Your task to perform on an android device: Open calendar and show me the second week of next month Image 0: 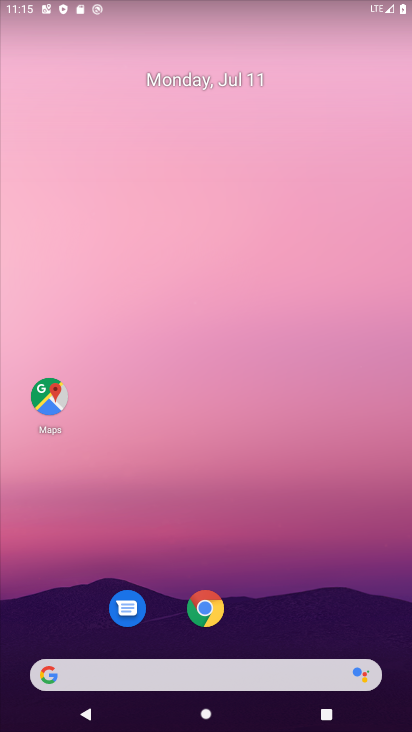
Step 0: drag from (30, 676) to (279, 7)
Your task to perform on an android device: Open calendar and show me the second week of next month Image 1: 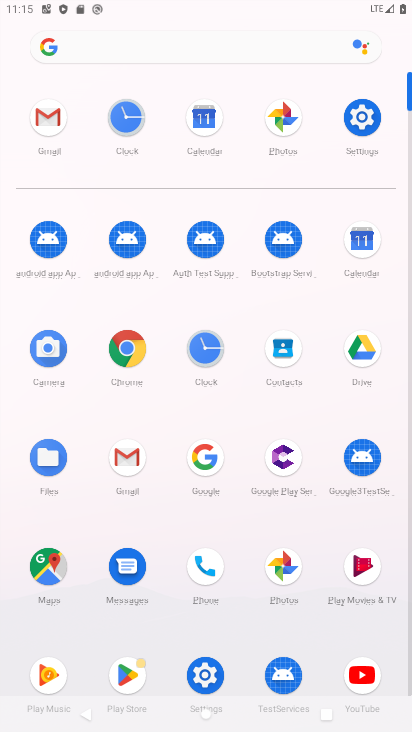
Step 1: click (362, 244)
Your task to perform on an android device: Open calendar and show me the second week of next month Image 2: 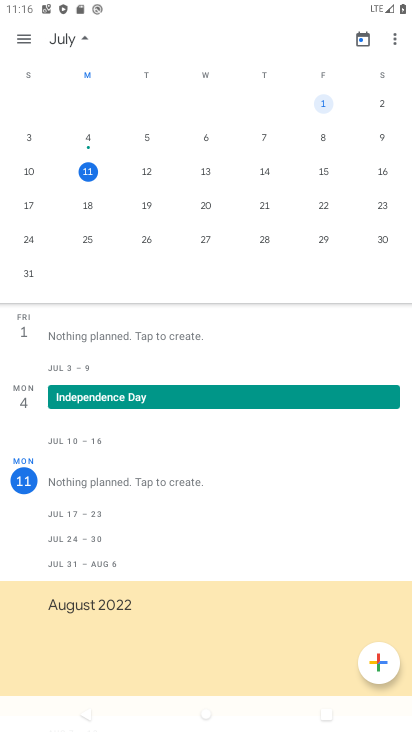
Step 2: drag from (404, 146) to (2, 284)
Your task to perform on an android device: Open calendar and show me the second week of next month Image 3: 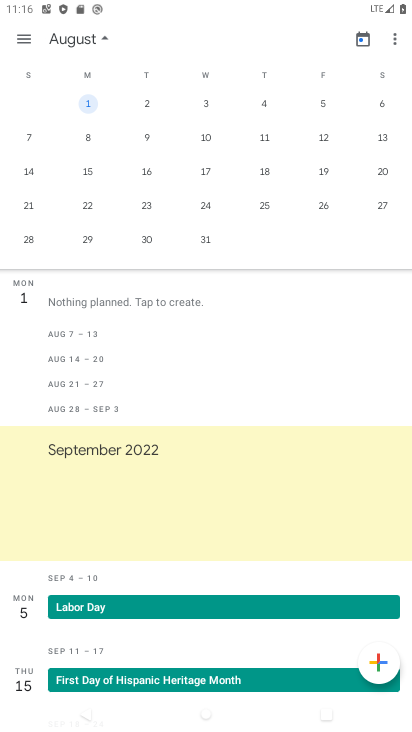
Step 3: click (85, 135)
Your task to perform on an android device: Open calendar and show me the second week of next month Image 4: 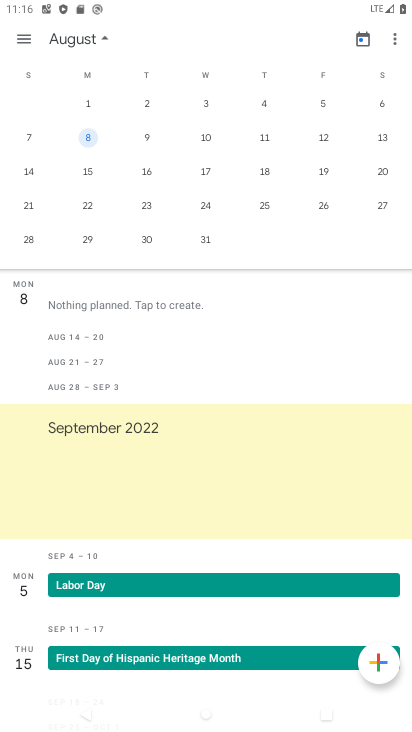
Step 4: task complete